Your task to perform on an android device: check storage Image 0: 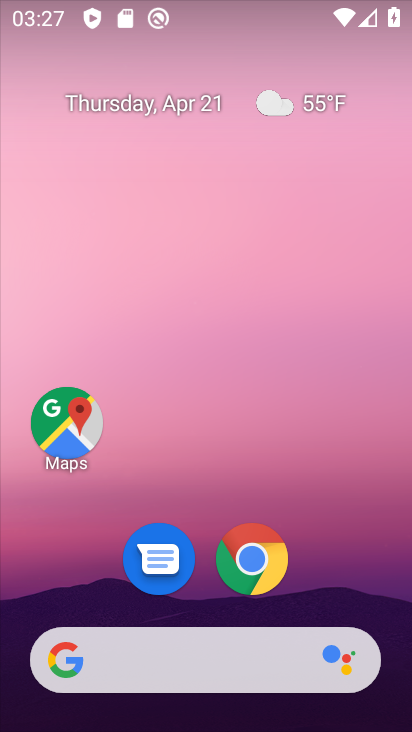
Step 0: drag from (346, 511) to (283, 6)
Your task to perform on an android device: check storage Image 1: 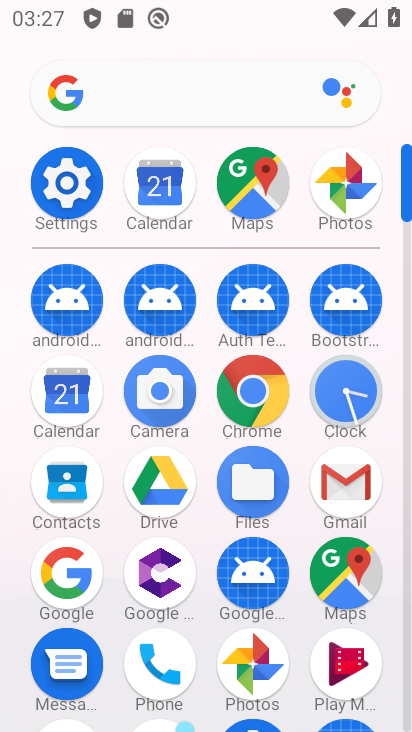
Step 1: click (72, 191)
Your task to perform on an android device: check storage Image 2: 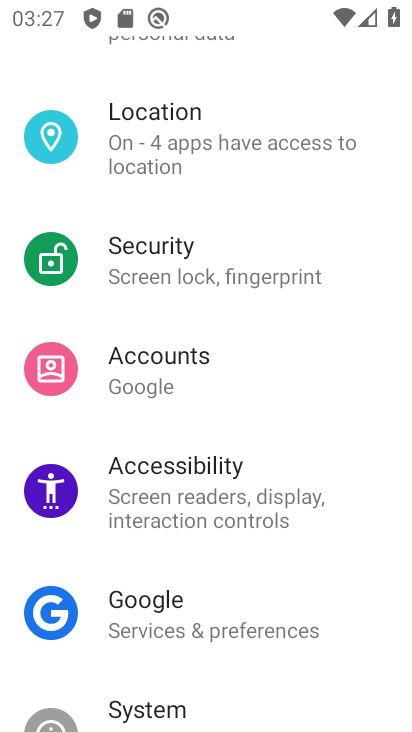
Step 2: drag from (208, 171) to (179, 529)
Your task to perform on an android device: check storage Image 3: 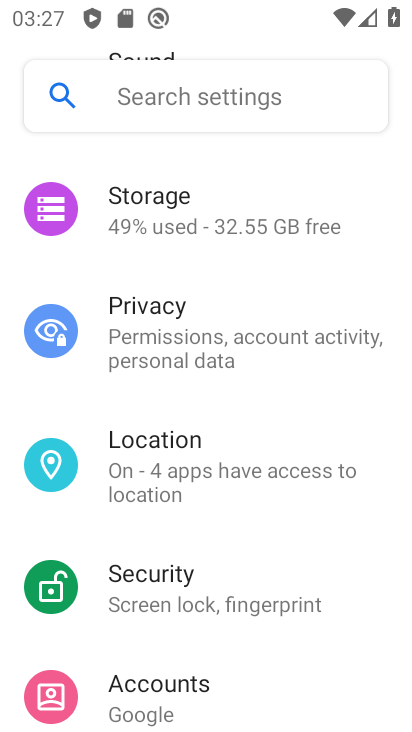
Step 3: click (172, 215)
Your task to perform on an android device: check storage Image 4: 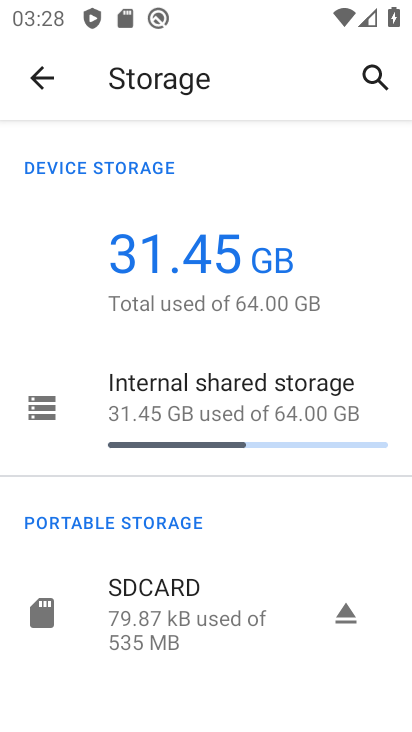
Step 4: task complete